Your task to perform on an android device: toggle notification dots Image 0: 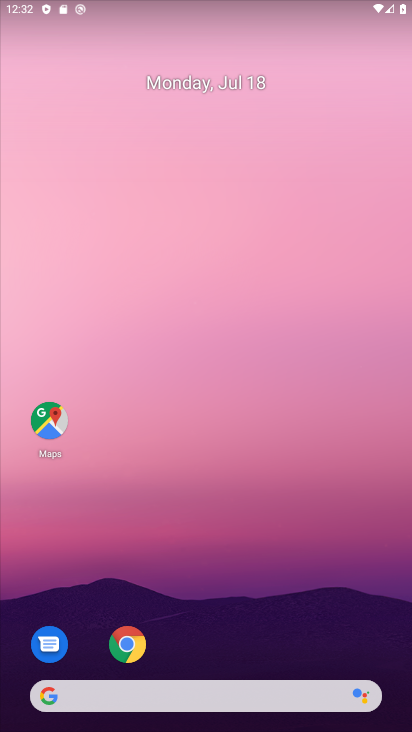
Step 0: press home button
Your task to perform on an android device: toggle notification dots Image 1: 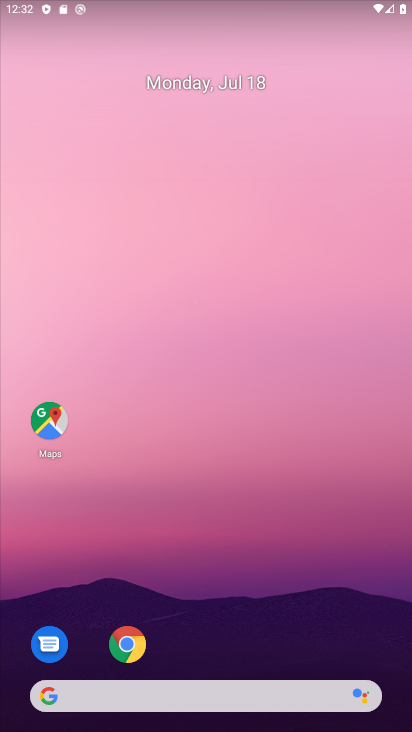
Step 1: drag from (215, 663) to (199, 47)
Your task to perform on an android device: toggle notification dots Image 2: 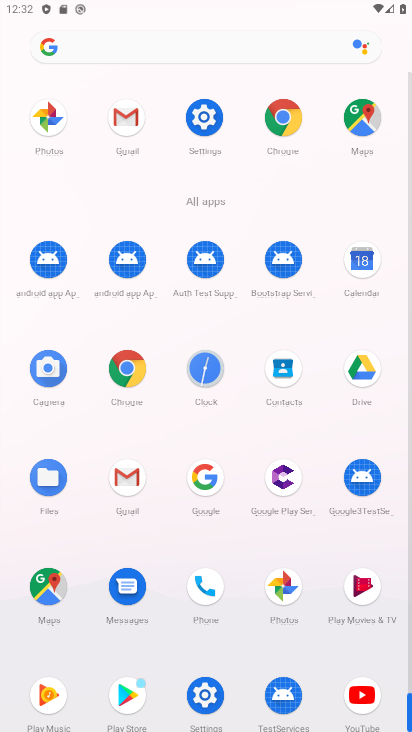
Step 2: click (201, 113)
Your task to perform on an android device: toggle notification dots Image 3: 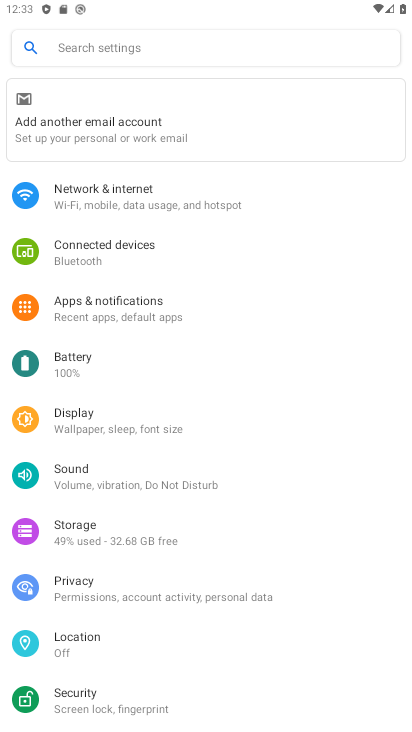
Step 3: click (177, 300)
Your task to perform on an android device: toggle notification dots Image 4: 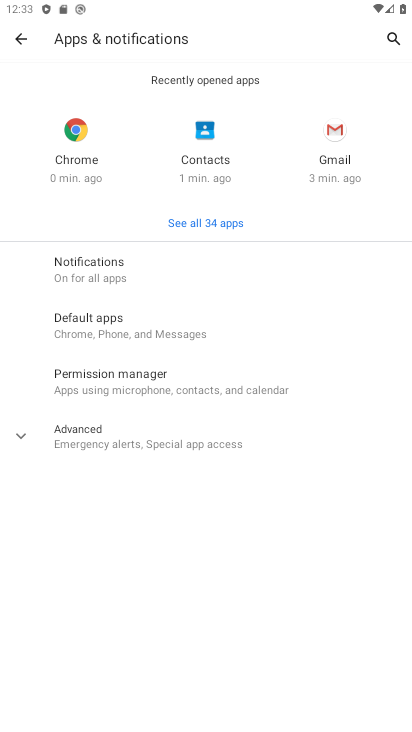
Step 4: click (140, 267)
Your task to perform on an android device: toggle notification dots Image 5: 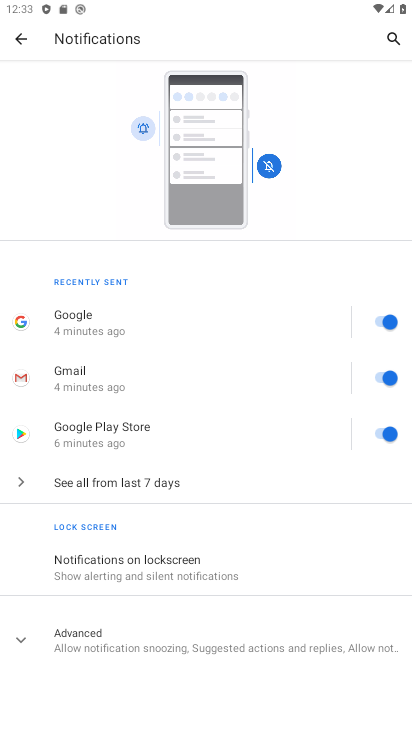
Step 5: click (17, 632)
Your task to perform on an android device: toggle notification dots Image 6: 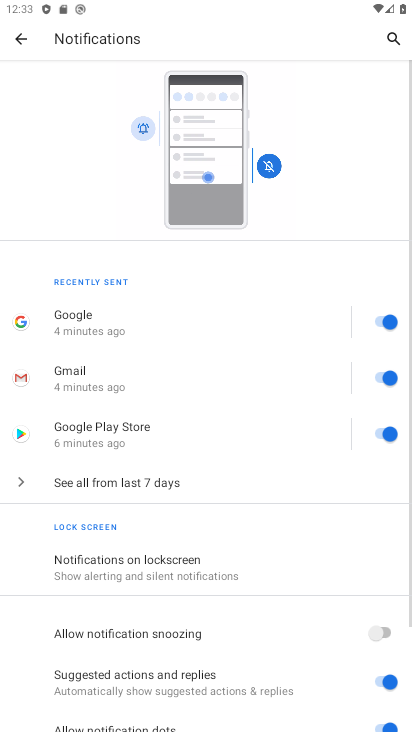
Step 6: drag from (187, 662) to (188, 373)
Your task to perform on an android device: toggle notification dots Image 7: 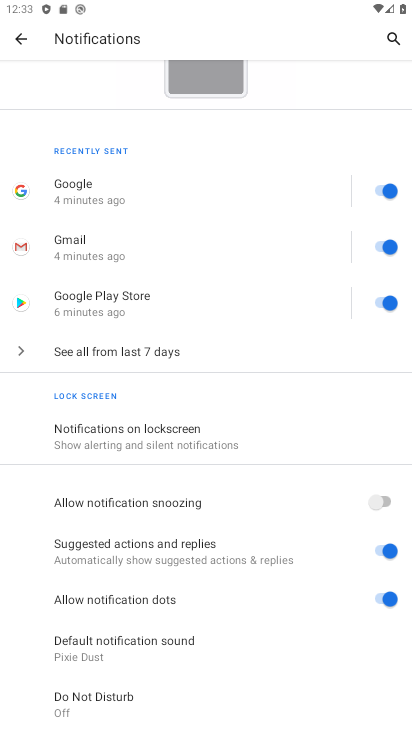
Step 7: click (379, 598)
Your task to perform on an android device: toggle notification dots Image 8: 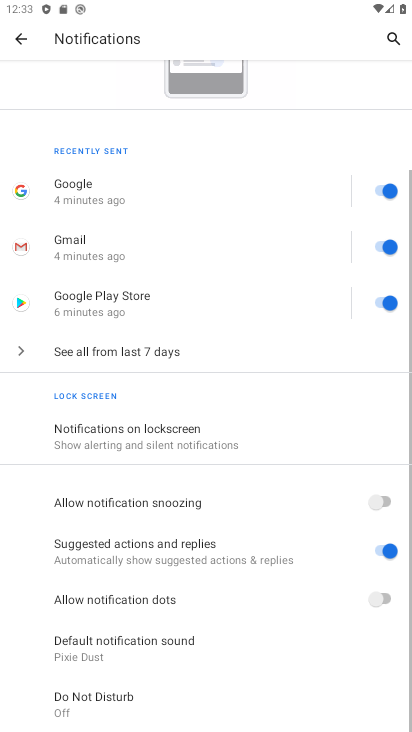
Step 8: task complete